Your task to perform on an android device: Search for Italian restaurants on Maps Image 0: 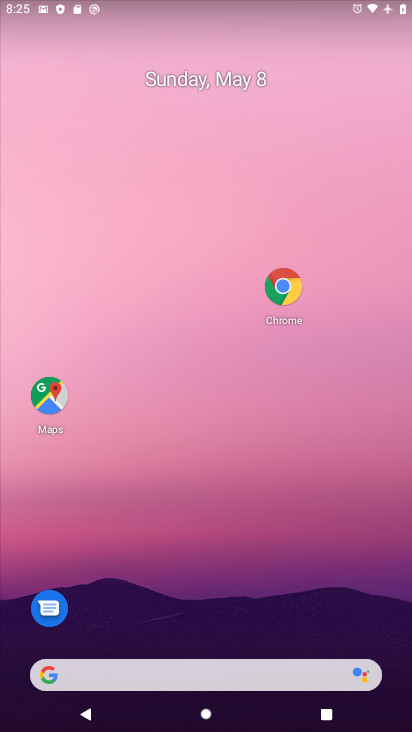
Step 0: press home button
Your task to perform on an android device: Search for Italian restaurants on Maps Image 1: 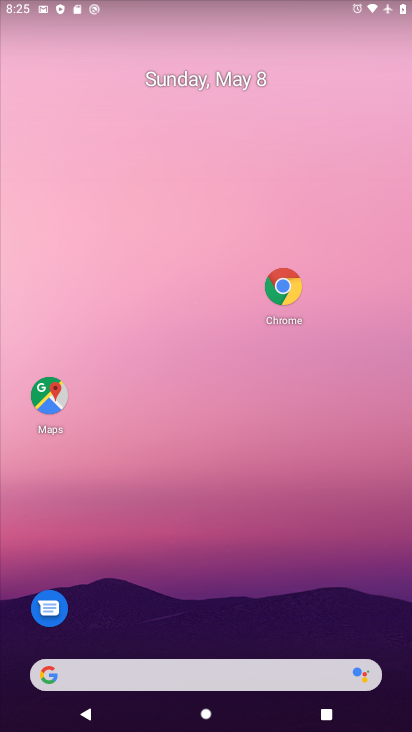
Step 1: drag from (203, 683) to (305, 137)
Your task to perform on an android device: Search for Italian restaurants on Maps Image 2: 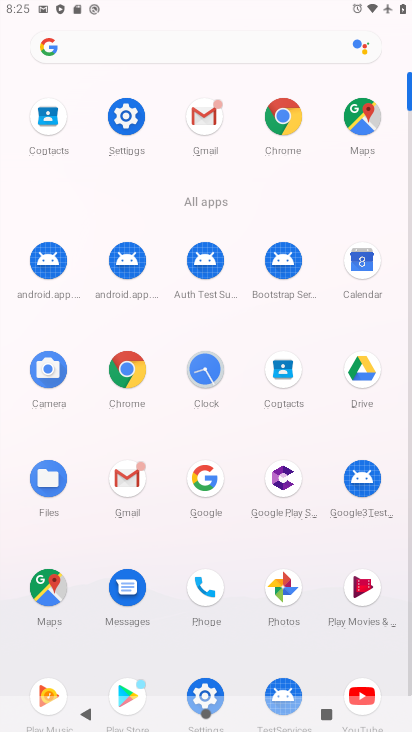
Step 2: click (47, 592)
Your task to perform on an android device: Search for Italian restaurants on Maps Image 3: 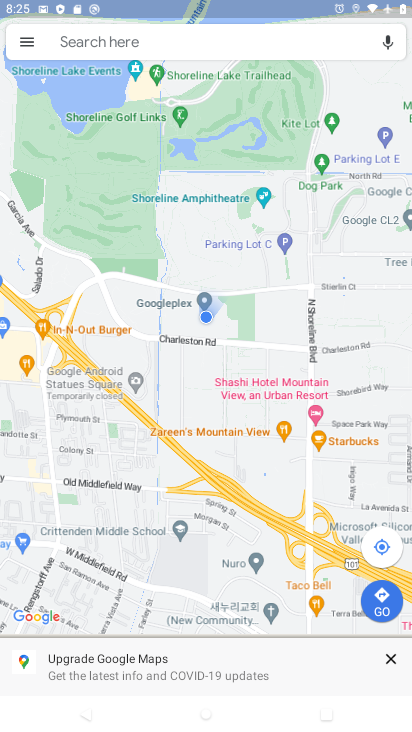
Step 3: click (191, 45)
Your task to perform on an android device: Search for Italian restaurants on Maps Image 4: 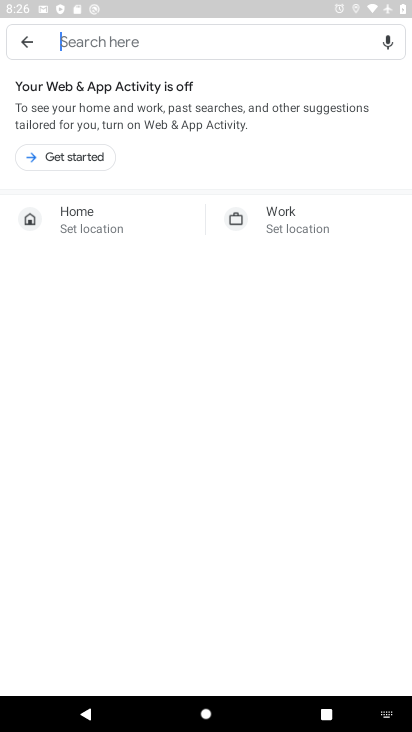
Step 4: type "italian restaurants"
Your task to perform on an android device: Search for Italian restaurants on Maps Image 5: 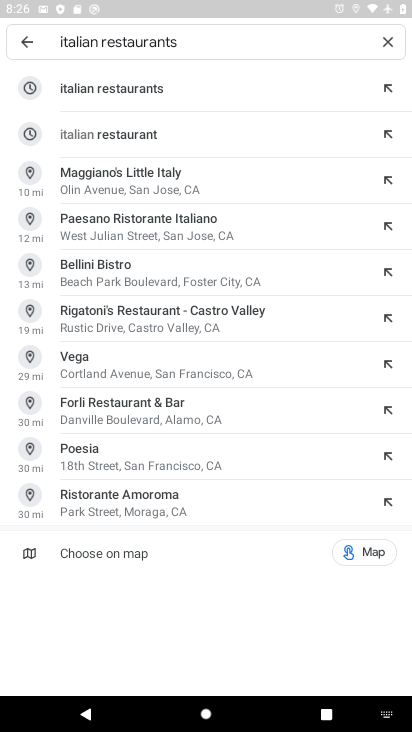
Step 5: click (153, 89)
Your task to perform on an android device: Search for Italian restaurants on Maps Image 6: 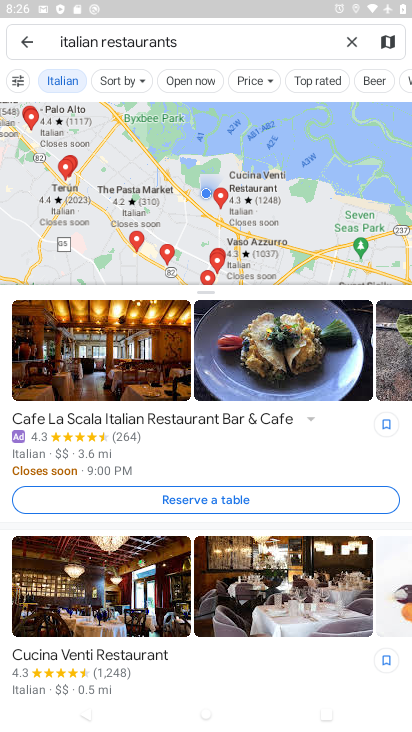
Step 6: task complete